Your task to perform on an android device: Is it going to rain today? Image 0: 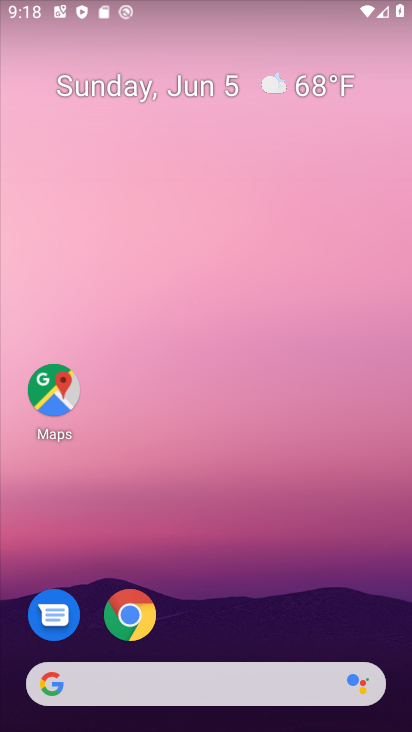
Step 0: click (324, 83)
Your task to perform on an android device: Is it going to rain today? Image 1: 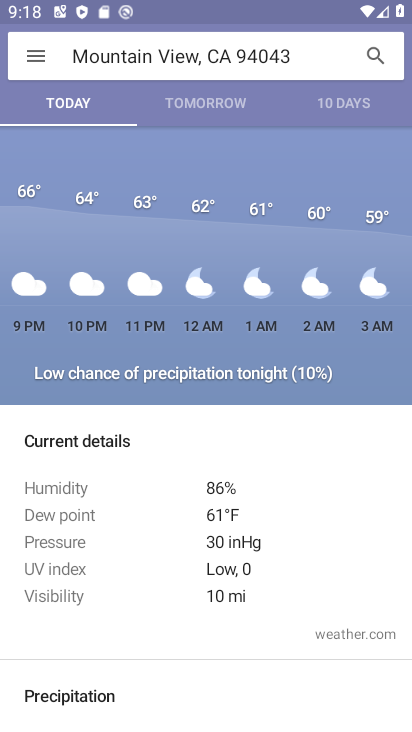
Step 1: task complete